Your task to perform on an android device: empty trash in google photos Image 0: 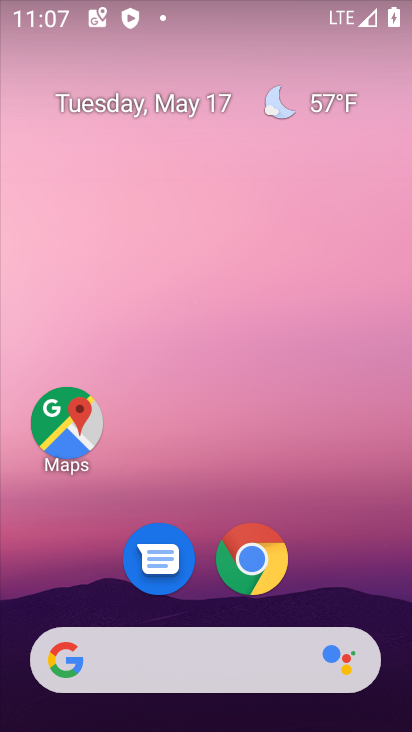
Step 0: drag from (337, 567) to (285, 0)
Your task to perform on an android device: empty trash in google photos Image 1: 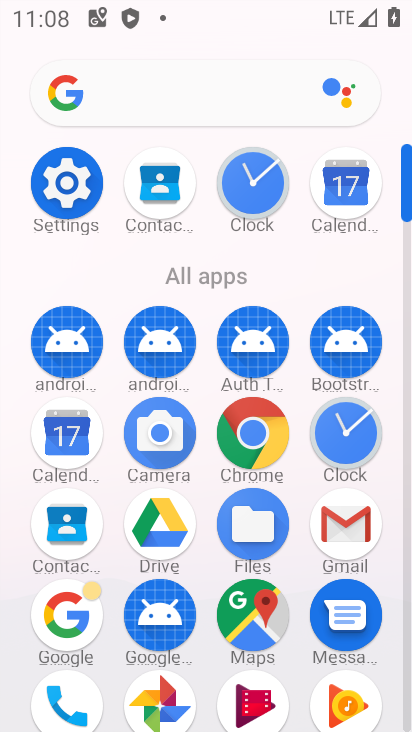
Step 1: click (137, 690)
Your task to perform on an android device: empty trash in google photos Image 2: 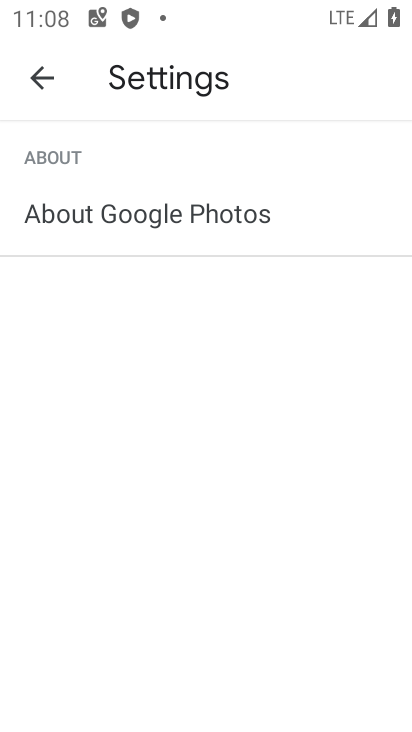
Step 2: click (52, 80)
Your task to perform on an android device: empty trash in google photos Image 3: 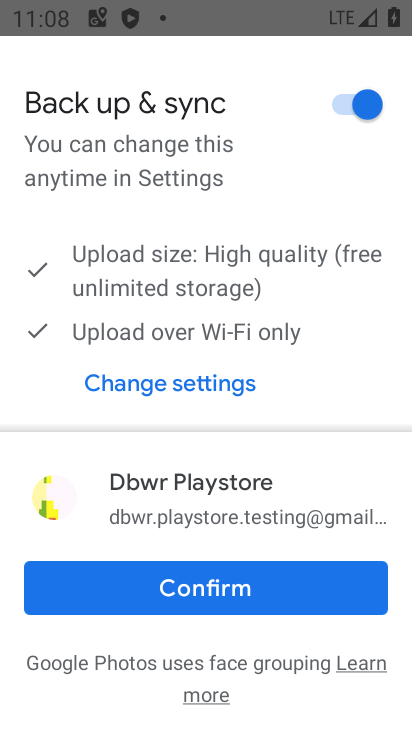
Step 3: click (144, 589)
Your task to perform on an android device: empty trash in google photos Image 4: 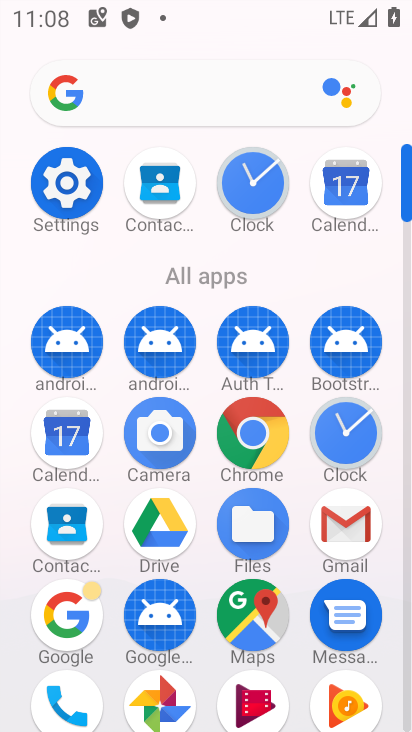
Step 4: click (172, 688)
Your task to perform on an android device: empty trash in google photos Image 5: 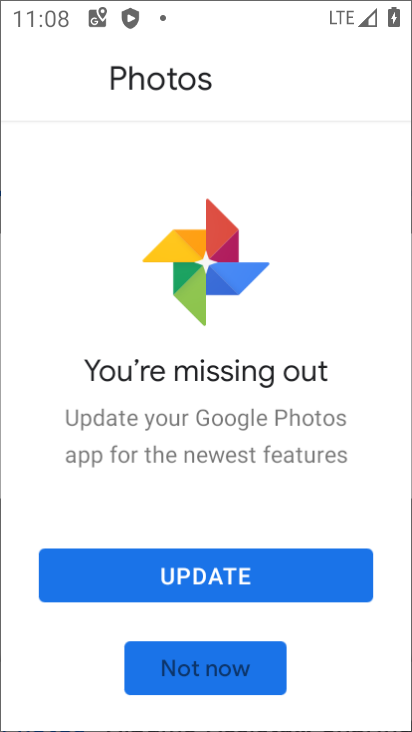
Step 5: click (53, 83)
Your task to perform on an android device: empty trash in google photos Image 6: 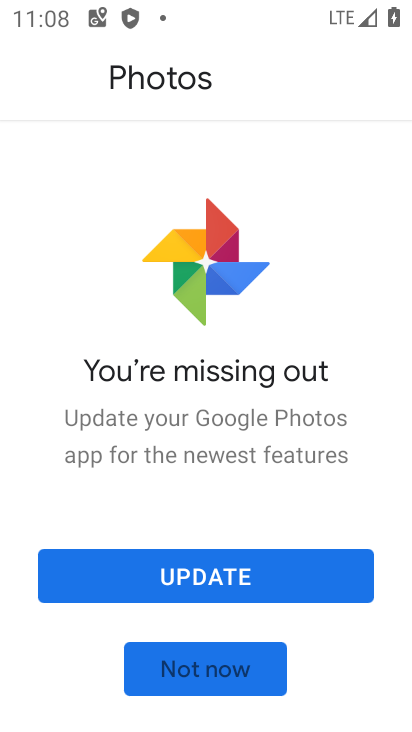
Step 6: click (192, 659)
Your task to perform on an android device: empty trash in google photos Image 7: 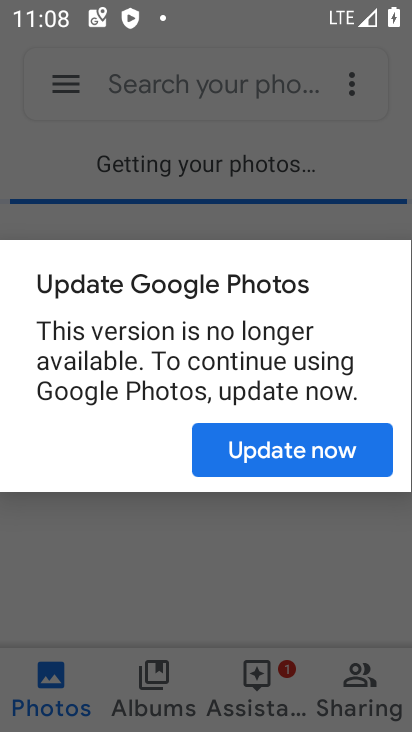
Step 7: click (263, 451)
Your task to perform on an android device: empty trash in google photos Image 8: 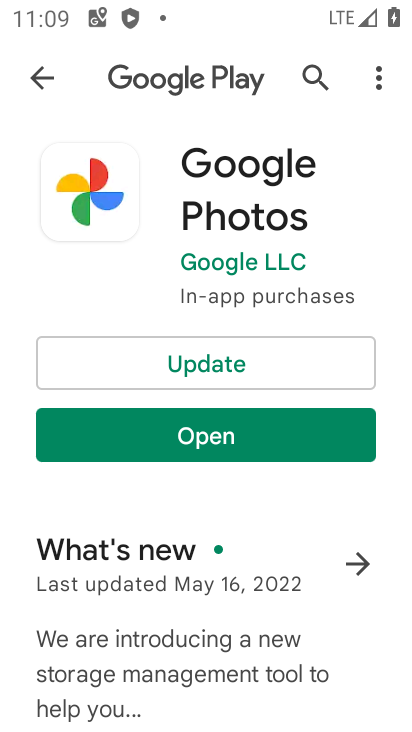
Step 8: click (245, 433)
Your task to perform on an android device: empty trash in google photos Image 9: 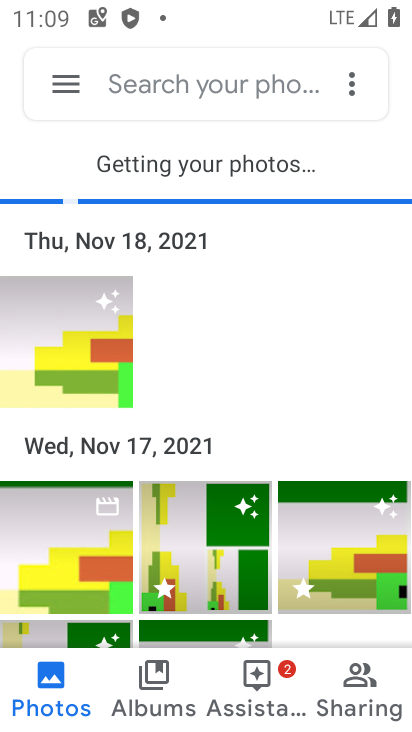
Step 9: click (62, 76)
Your task to perform on an android device: empty trash in google photos Image 10: 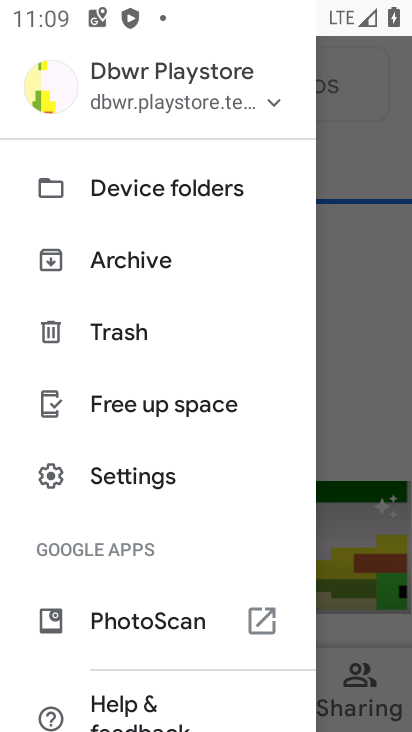
Step 10: click (127, 320)
Your task to perform on an android device: empty trash in google photos Image 11: 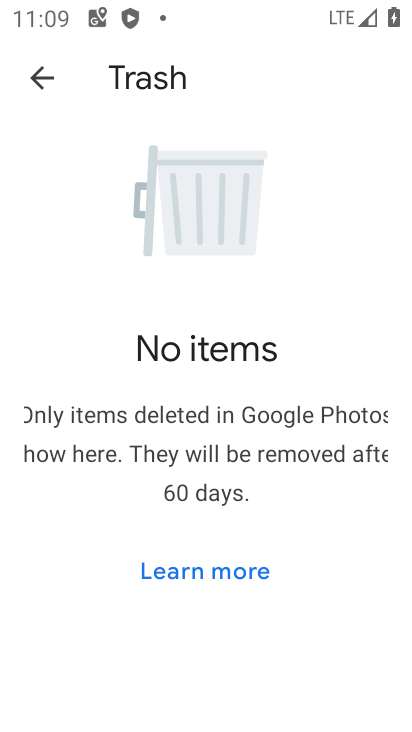
Step 11: task complete